Your task to perform on an android device: Set the phone to "Do not disturb". Image 0: 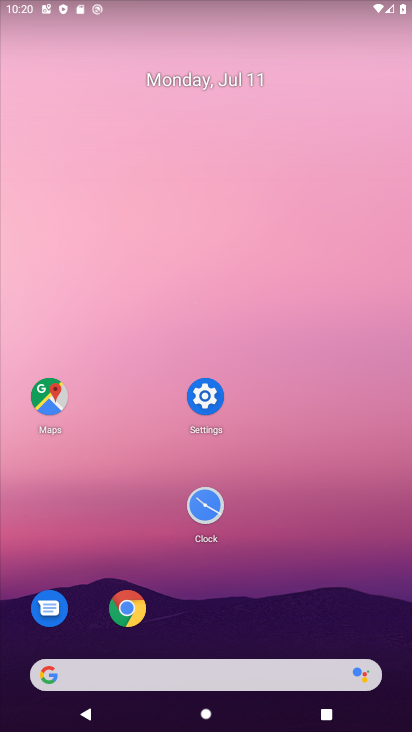
Step 0: drag from (406, 714) to (376, 20)
Your task to perform on an android device: Set the phone to "Do not disturb". Image 1: 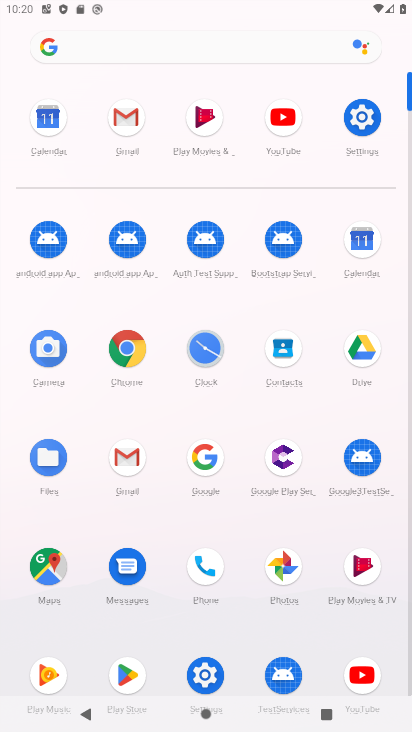
Step 1: click (354, 119)
Your task to perform on an android device: Set the phone to "Do not disturb". Image 2: 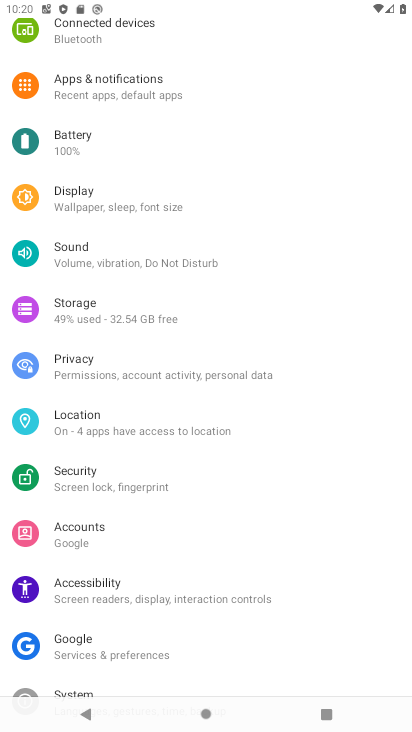
Step 2: click (73, 252)
Your task to perform on an android device: Set the phone to "Do not disturb". Image 3: 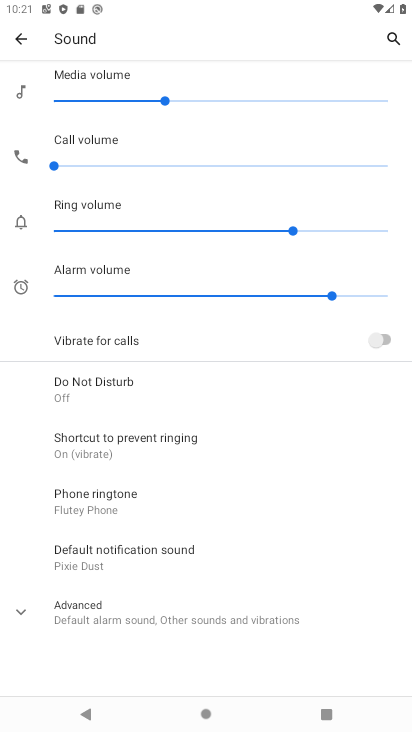
Step 3: click (75, 384)
Your task to perform on an android device: Set the phone to "Do not disturb". Image 4: 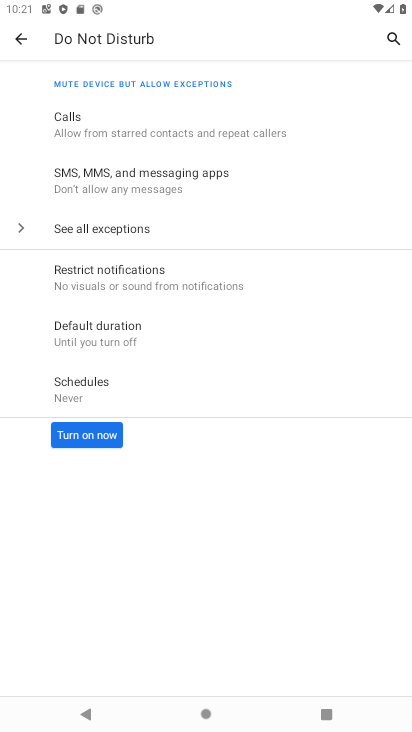
Step 4: click (79, 432)
Your task to perform on an android device: Set the phone to "Do not disturb". Image 5: 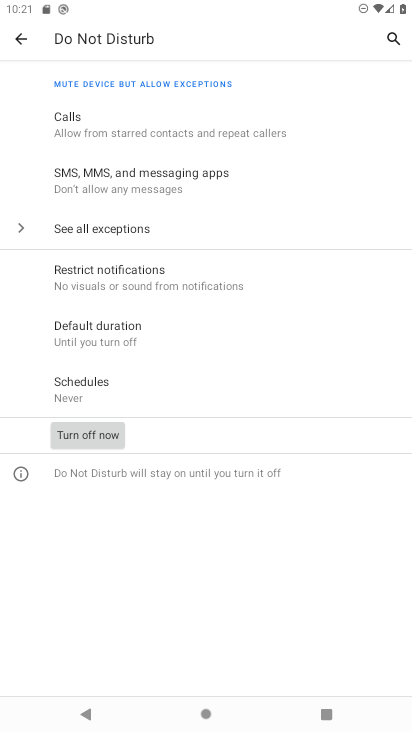
Step 5: task complete